Your task to perform on an android device: Open the phone app and click the voicemail tab. Image 0: 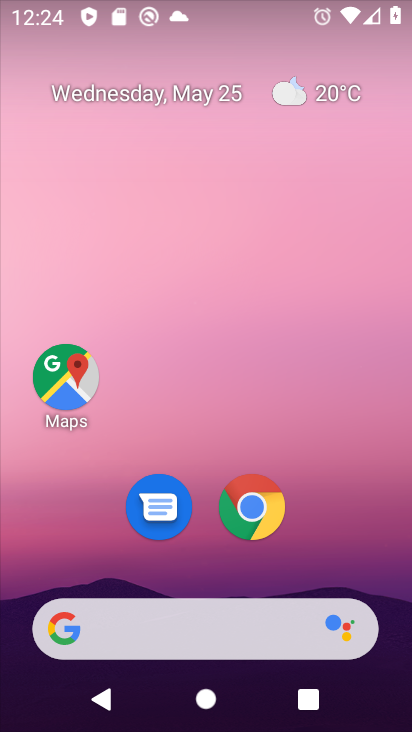
Step 0: drag from (389, 572) to (301, 162)
Your task to perform on an android device: Open the phone app and click the voicemail tab. Image 1: 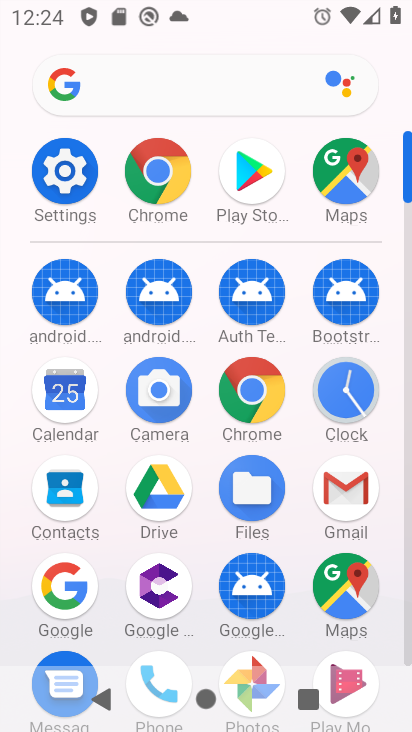
Step 1: click (161, 661)
Your task to perform on an android device: Open the phone app and click the voicemail tab. Image 2: 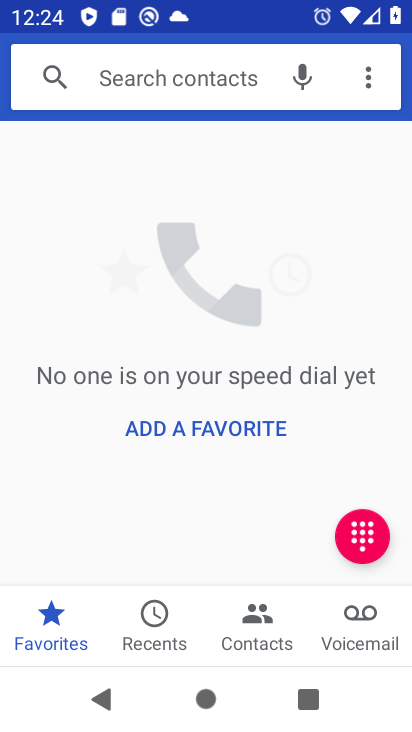
Step 2: click (345, 609)
Your task to perform on an android device: Open the phone app and click the voicemail tab. Image 3: 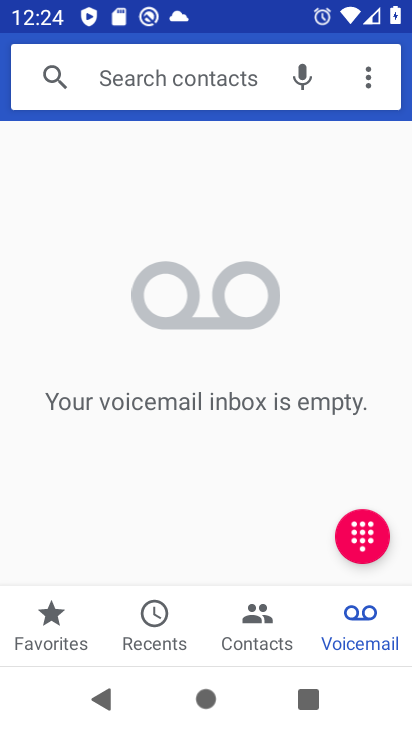
Step 3: task complete